Your task to perform on an android device: Open the calendar app, open the side menu, and click the "Day" option Image 0: 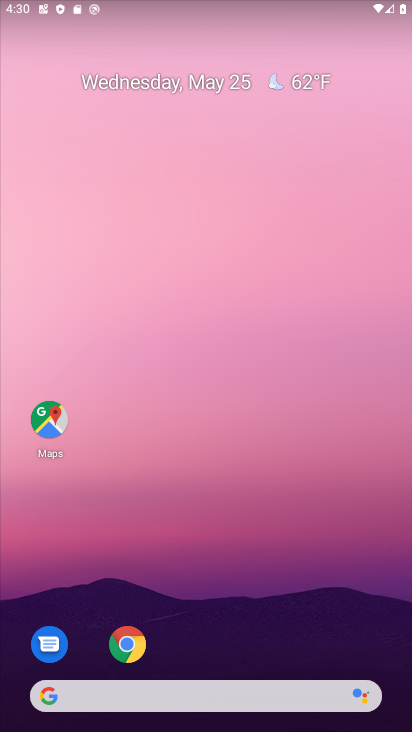
Step 0: drag from (167, 470) to (161, 24)
Your task to perform on an android device: Open the calendar app, open the side menu, and click the "Day" option Image 1: 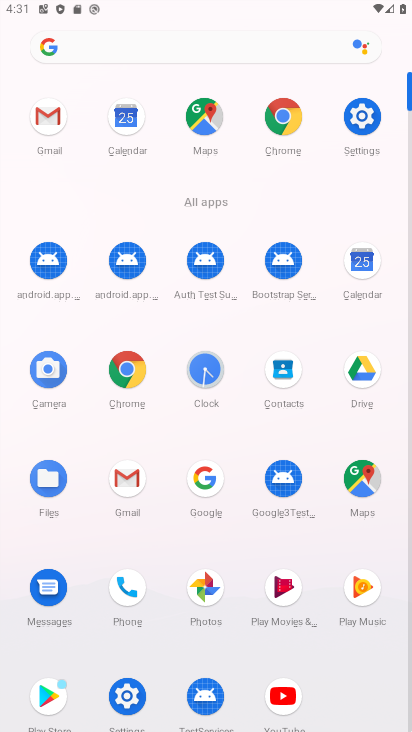
Step 1: click (119, 133)
Your task to perform on an android device: Open the calendar app, open the side menu, and click the "Day" option Image 2: 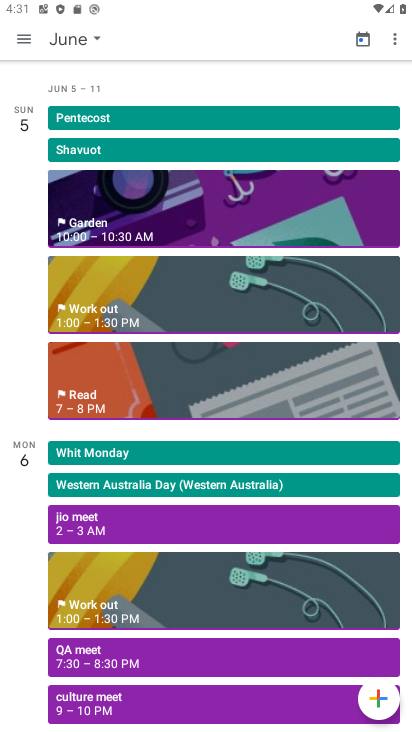
Step 2: click (25, 44)
Your task to perform on an android device: Open the calendar app, open the side menu, and click the "Day" option Image 3: 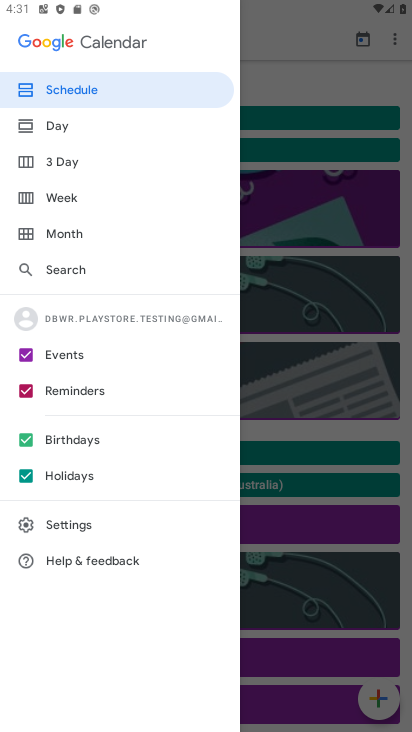
Step 3: click (52, 128)
Your task to perform on an android device: Open the calendar app, open the side menu, and click the "Day" option Image 4: 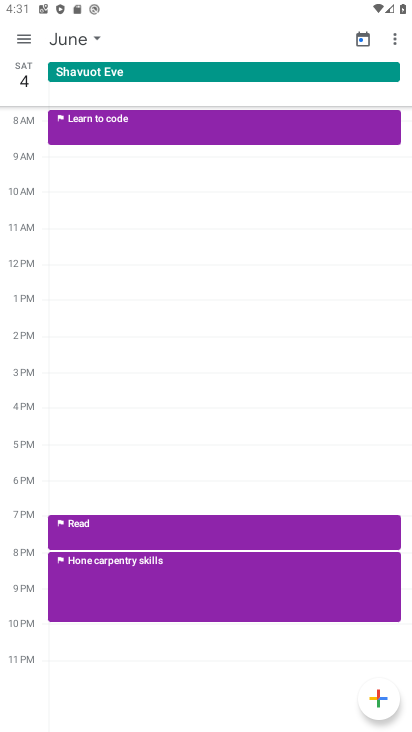
Step 4: task complete